Your task to perform on an android device: toggle pop-ups in chrome Image 0: 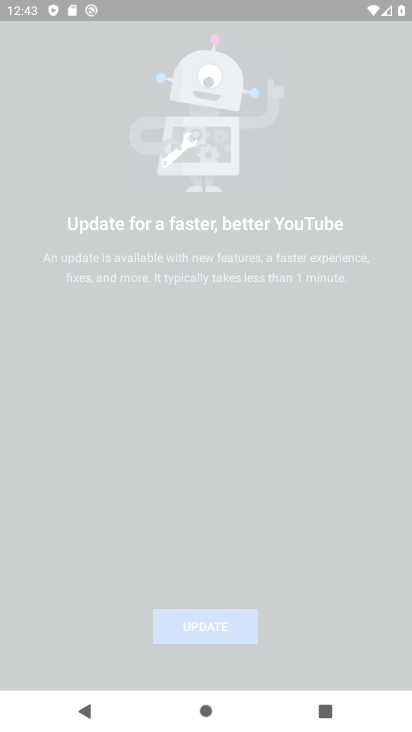
Step 0: drag from (153, 652) to (74, 298)
Your task to perform on an android device: toggle pop-ups in chrome Image 1: 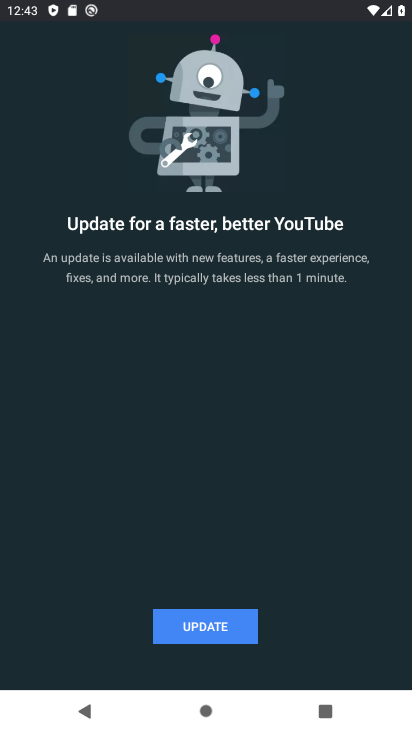
Step 1: press home button
Your task to perform on an android device: toggle pop-ups in chrome Image 2: 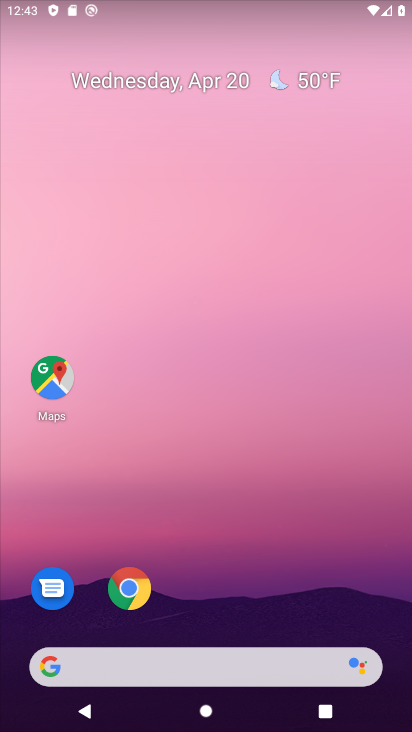
Step 2: click (133, 590)
Your task to perform on an android device: toggle pop-ups in chrome Image 3: 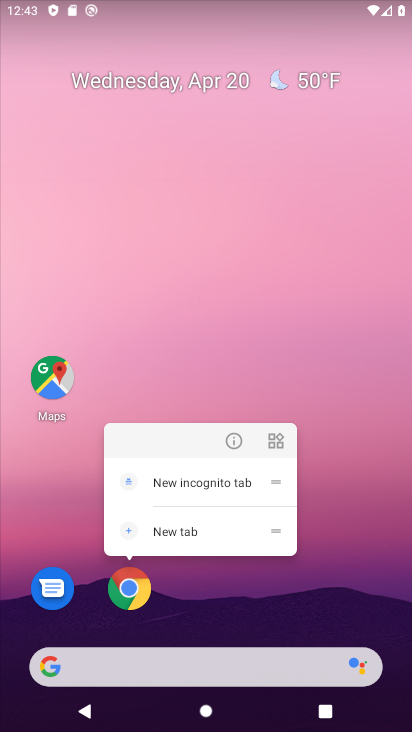
Step 3: click (133, 590)
Your task to perform on an android device: toggle pop-ups in chrome Image 4: 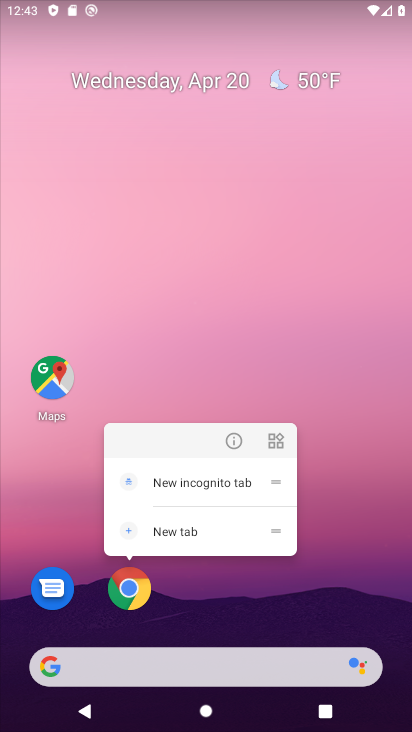
Step 4: drag from (156, 621) to (129, 308)
Your task to perform on an android device: toggle pop-ups in chrome Image 5: 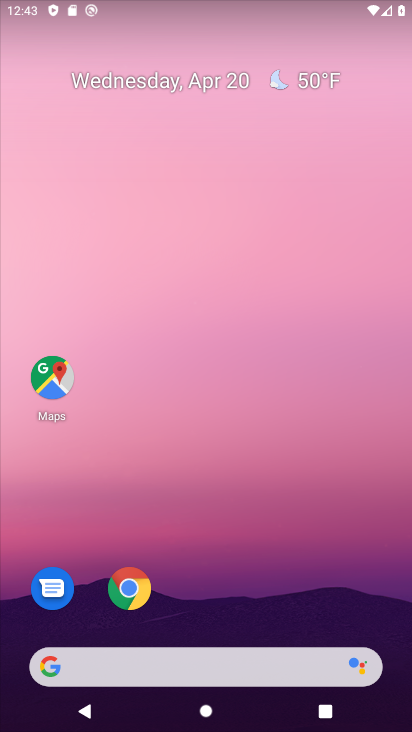
Step 5: drag from (144, 636) to (146, 16)
Your task to perform on an android device: toggle pop-ups in chrome Image 6: 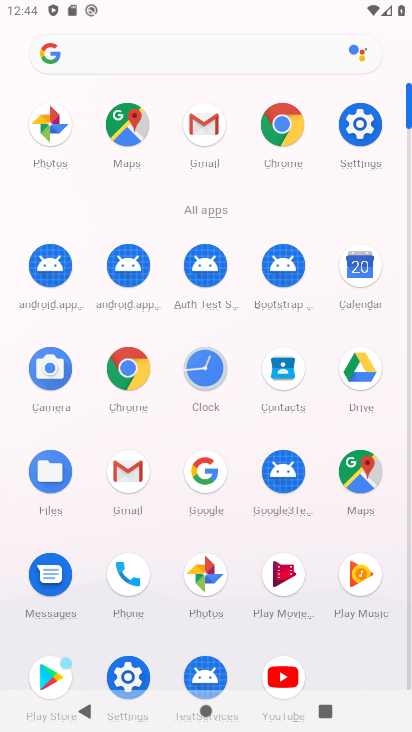
Step 6: click (287, 127)
Your task to perform on an android device: toggle pop-ups in chrome Image 7: 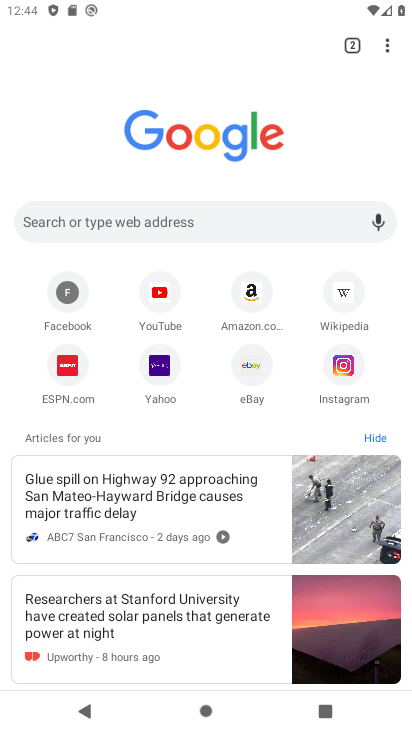
Step 7: click (389, 43)
Your task to perform on an android device: toggle pop-ups in chrome Image 8: 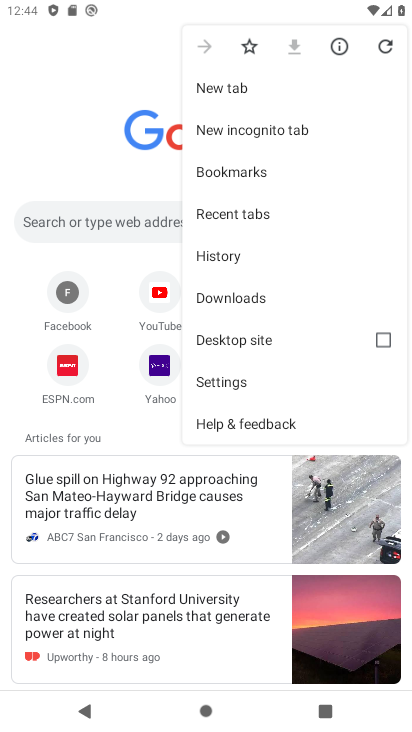
Step 8: click (223, 381)
Your task to perform on an android device: toggle pop-ups in chrome Image 9: 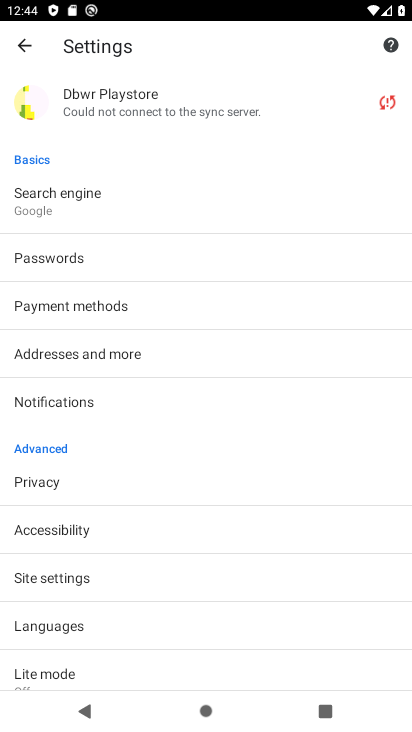
Step 9: click (63, 573)
Your task to perform on an android device: toggle pop-ups in chrome Image 10: 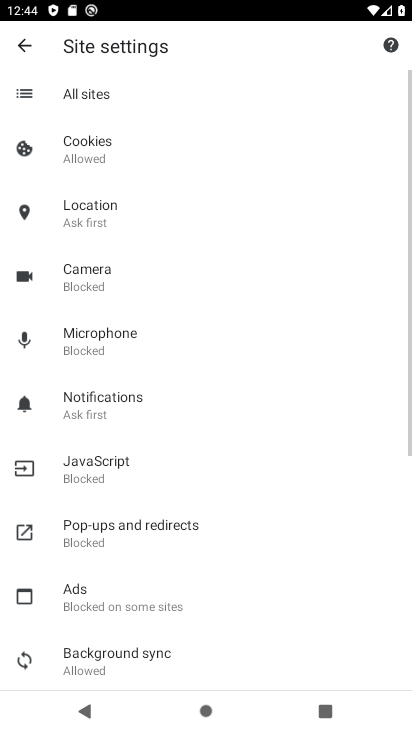
Step 10: click (105, 541)
Your task to perform on an android device: toggle pop-ups in chrome Image 11: 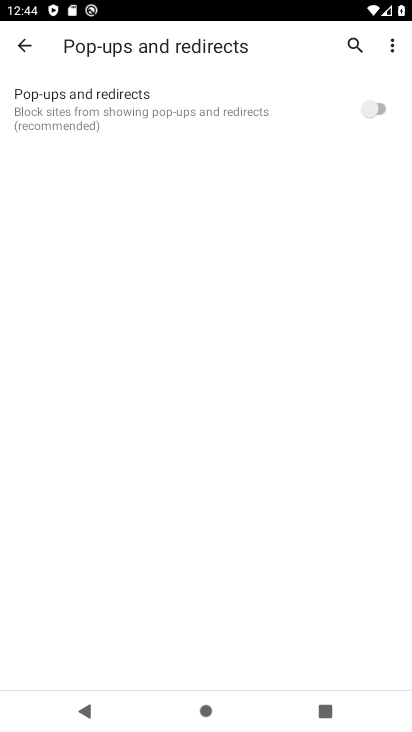
Step 11: click (373, 106)
Your task to perform on an android device: toggle pop-ups in chrome Image 12: 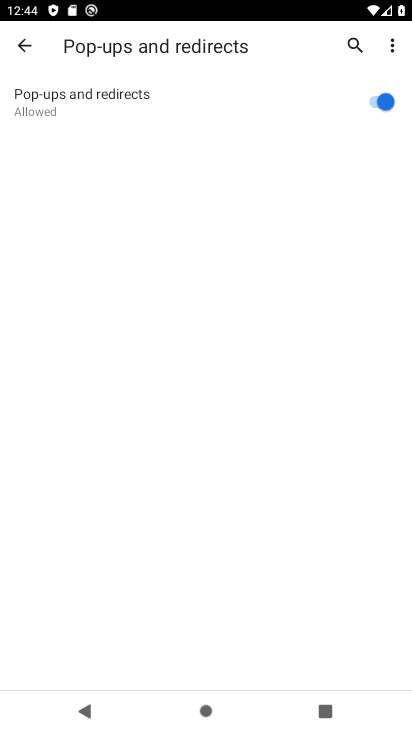
Step 12: task complete